Your task to perform on an android device: Open Chrome and go to settings Image 0: 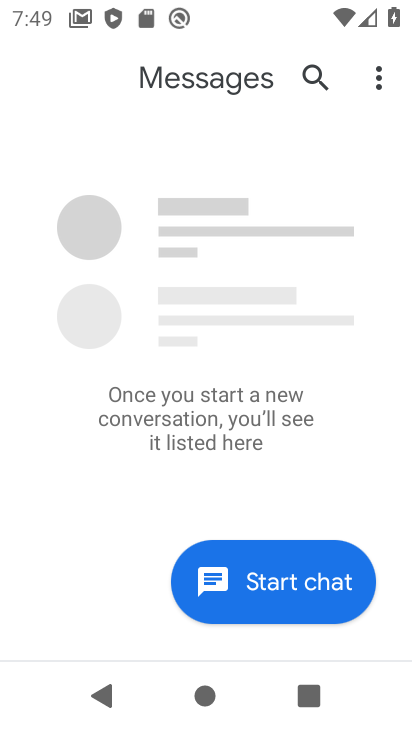
Step 0: press home button
Your task to perform on an android device: Open Chrome and go to settings Image 1: 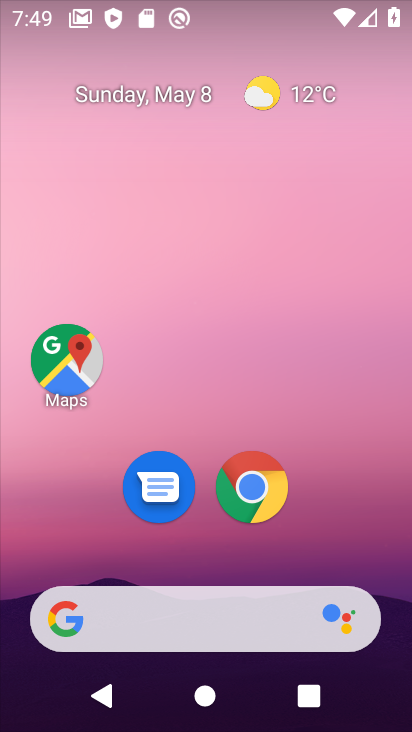
Step 1: click (258, 482)
Your task to perform on an android device: Open Chrome and go to settings Image 2: 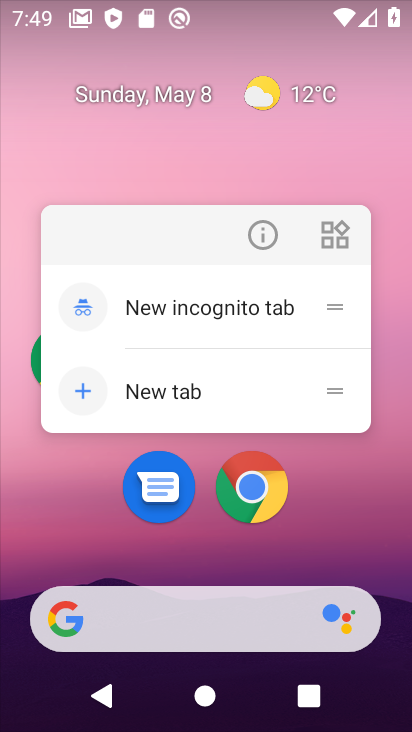
Step 2: click (266, 489)
Your task to perform on an android device: Open Chrome and go to settings Image 3: 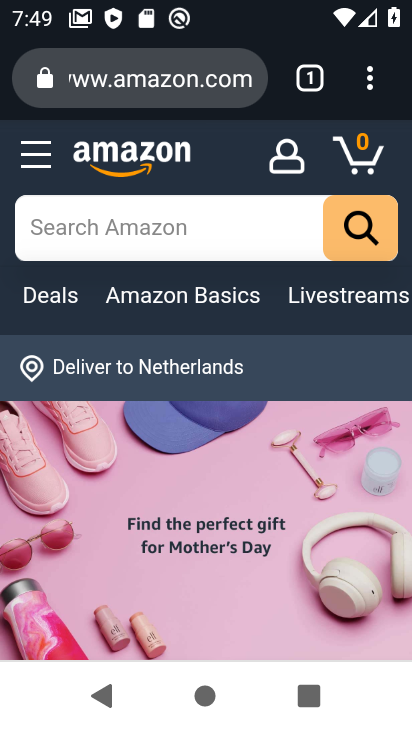
Step 3: task complete